Your task to perform on an android device: toggle priority inbox in the gmail app Image 0: 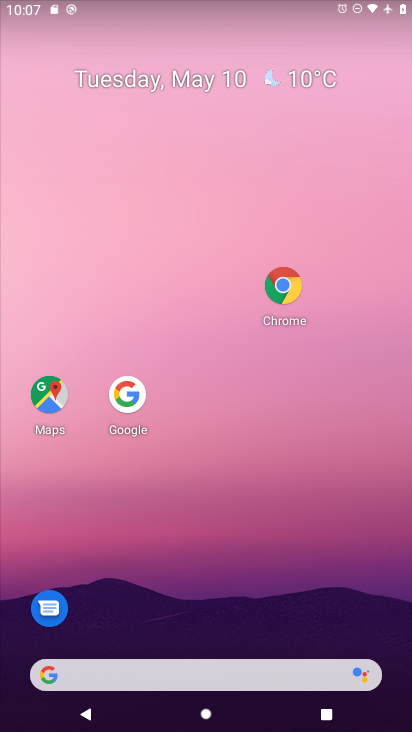
Step 0: press home button
Your task to perform on an android device: toggle priority inbox in the gmail app Image 1: 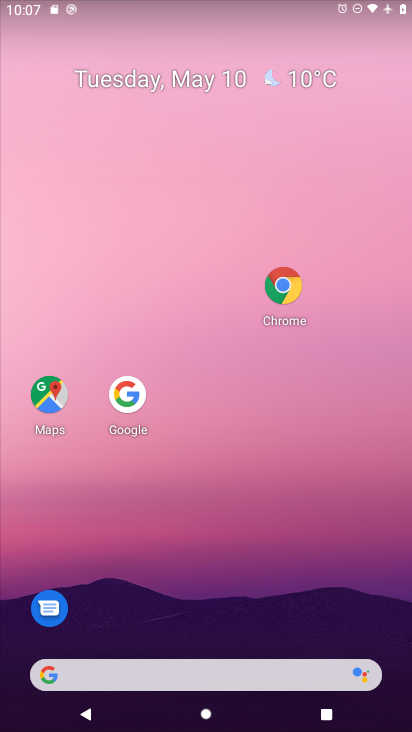
Step 1: drag from (225, 671) to (272, 306)
Your task to perform on an android device: toggle priority inbox in the gmail app Image 2: 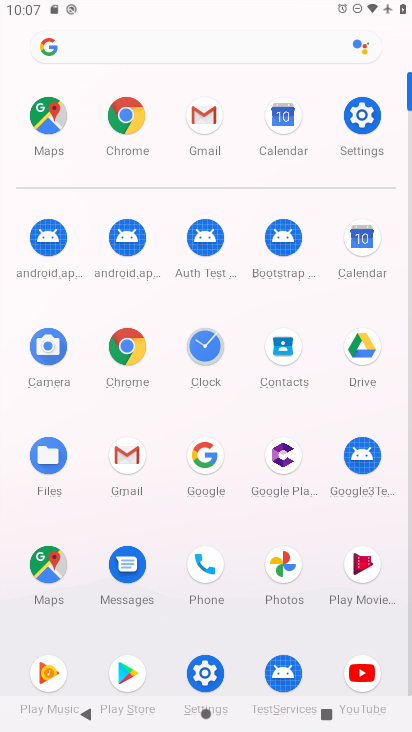
Step 2: click (210, 126)
Your task to perform on an android device: toggle priority inbox in the gmail app Image 3: 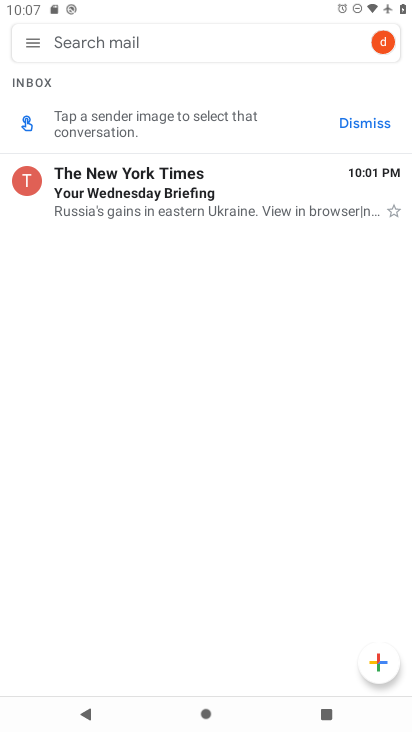
Step 3: click (32, 48)
Your task to perform on an android device: toggle priority inbox in the gmail app Image 4: 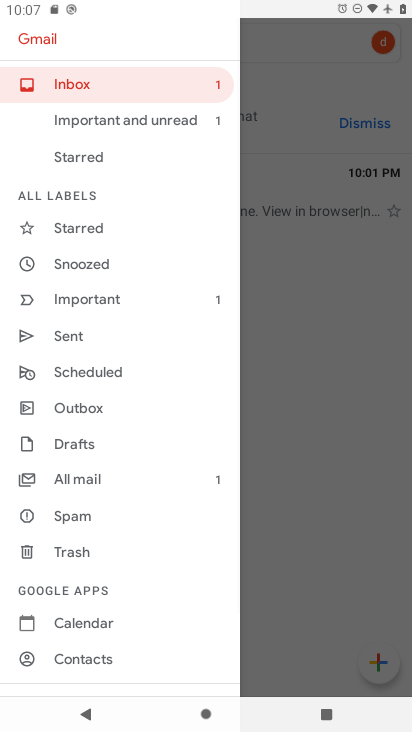
Step 4: drag from (93, 642) to (202, 253)
Your task to perform on an android device: toggle priority inbox in the gmail app Image 5: 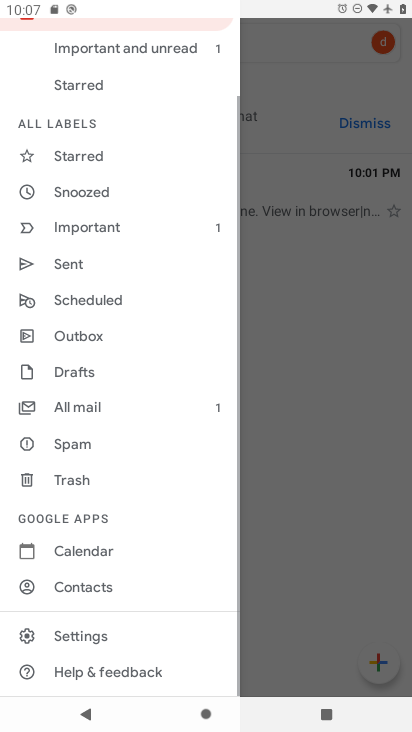
Step 5: click (90, 630)
Your task to perform on an android device: toggle priority inbox in the gmail app Image 6: 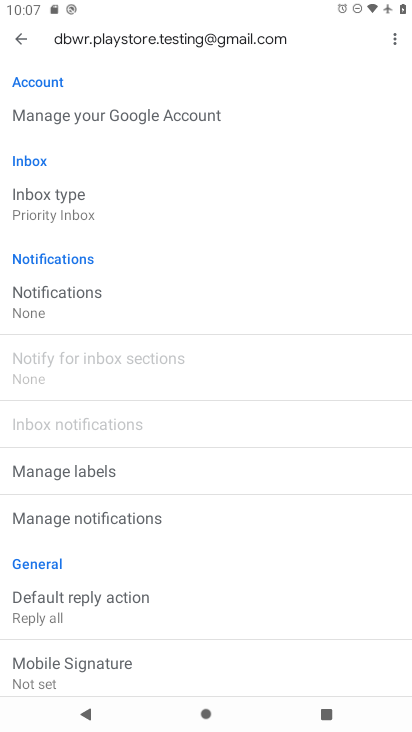
Step 6: click (62, 210)
Your task to perform on an android device: toggle priority inbox in the gmail app Image 7: 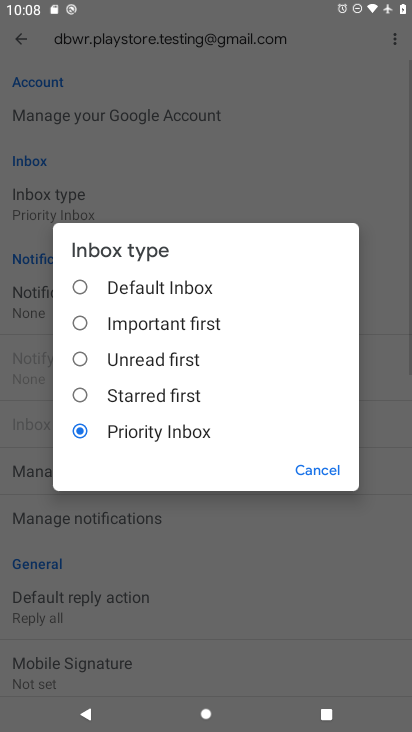
Step 7: click (85, 286)
Your task to perform on an android device: toggle priority inbox in the gmail app Image 8: 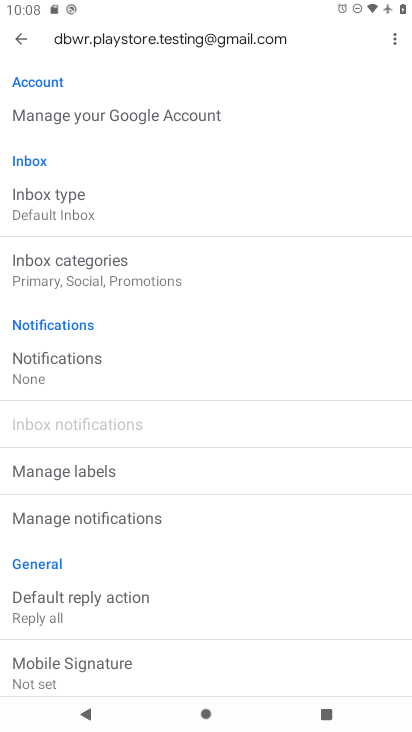
Step 8: task complete